Your task to perform on an android device: turn pop-ups on in chrome Image 0: 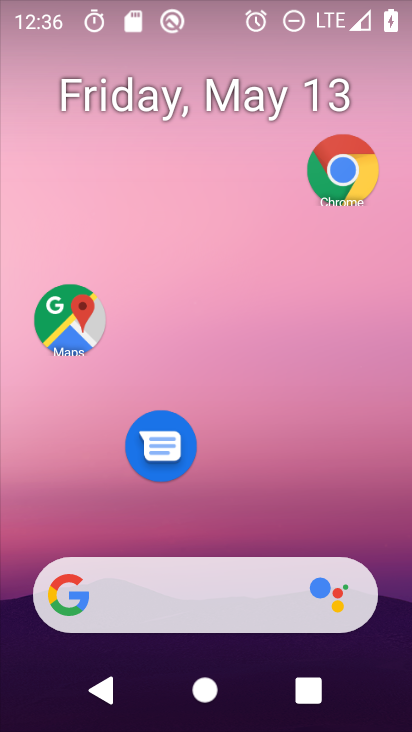
Step 0: drag from (284, 589) to (353, 55)
Your task to perform on an android device: turn pop-ups on in chrome Image 1: 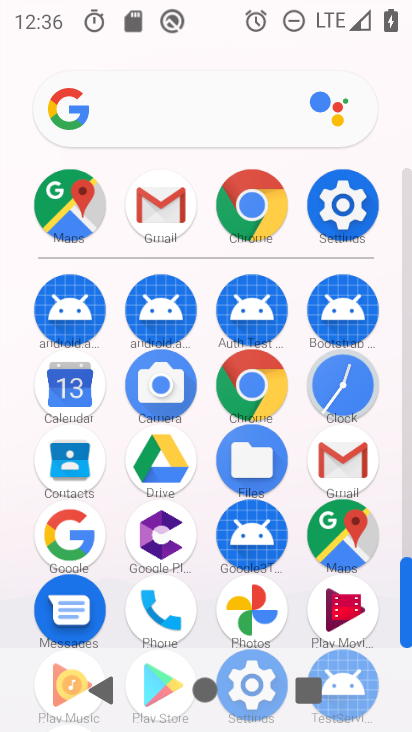
Step 1: click (272, 382)
Your task to perform on an android device: turn pop-ups on in chrome Image 2: 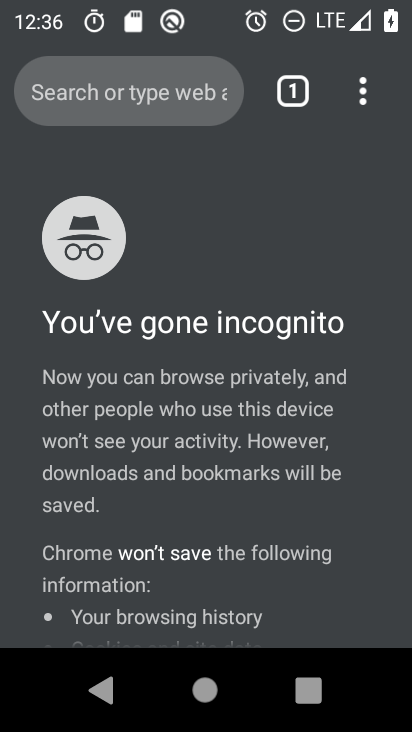
Step 2: drag from (366, 91) to (187, 477)
Your task to perform on an android device: turn pop-ups on in chrome Image 3: 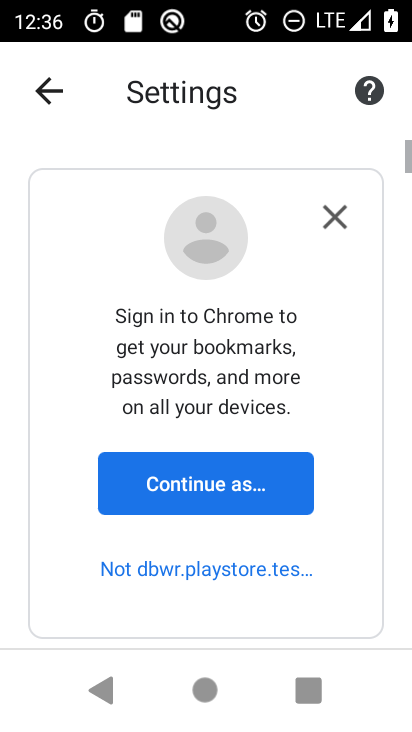
Step 3: drag from (304, 579) to (311, 43)
Your task to perform on an android device: turn pop-ups on in chrome Image 4: 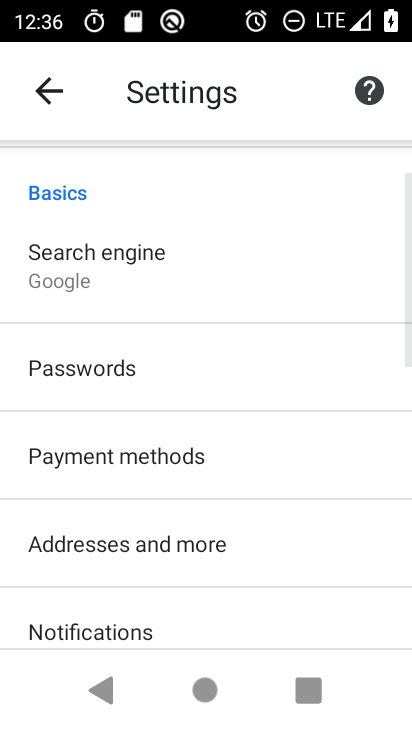
Step 4: drag from (332, 589) to (368, 132)
Your task to perform on an android device: turn pop-ups on in chrome Image 5: 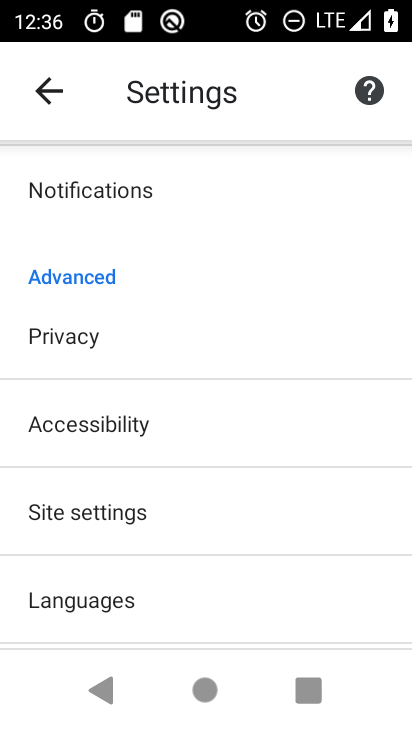
Step 5: drag from (302, 620) to (325, 91)
Your task to perform on an android device: turn pop-ups on in chrome Image 6: 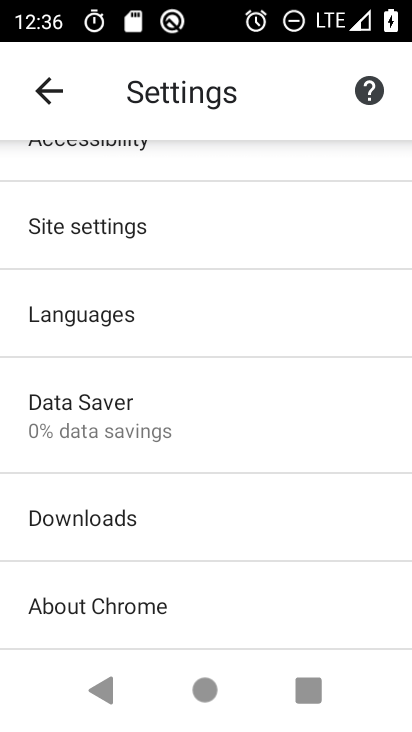
Step 6: click (177, 225)
Your task to perform on an android device: turn pop-ups on in chrome Image 7: 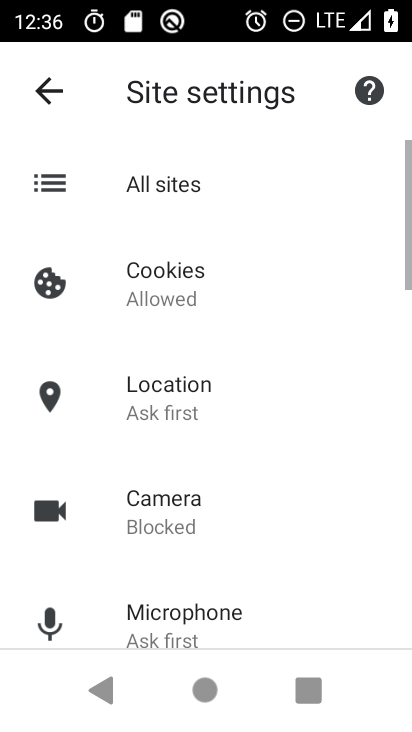
Step 7: drag from (235, 596) to (277, 137)
Your task to perform on an android device: turn pop-ups on in chrome Image 8: 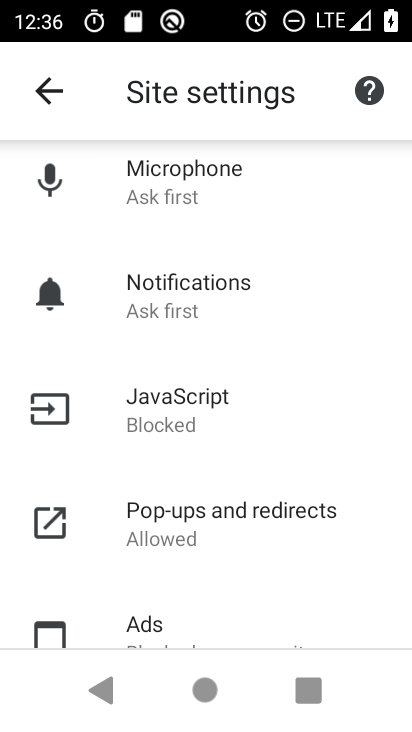
Step 8: click (191, 542)
Your task to perform on an android device: turn pop-ups on in chrome Image 9: 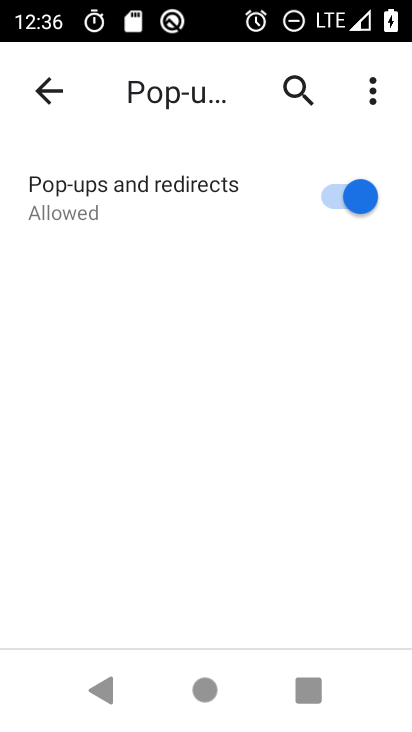
Step 9: task complete